Your task to perform on an android device: toggle sleep mode Image 0: 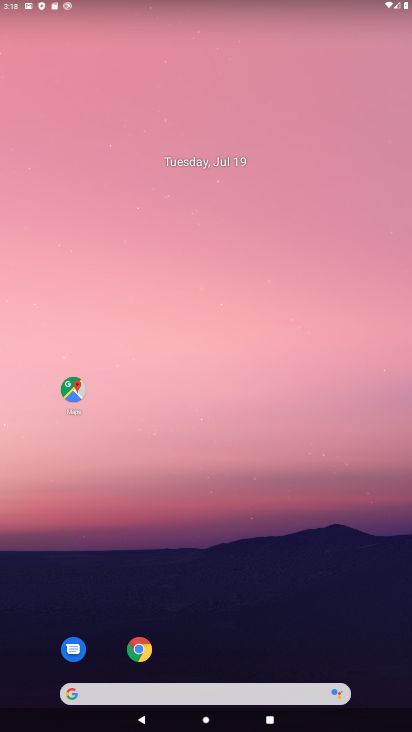
Step 0: drag from (220, 694) to (192, 252)
Your task to perform on an android device: toggle sleep mode Image 1: 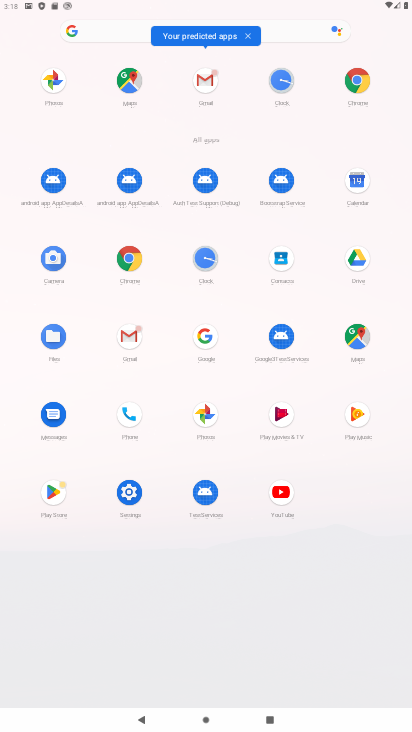
Step 1: click (128, 492)
Your task to perform on an android device: toggle sleep mode Image 2: 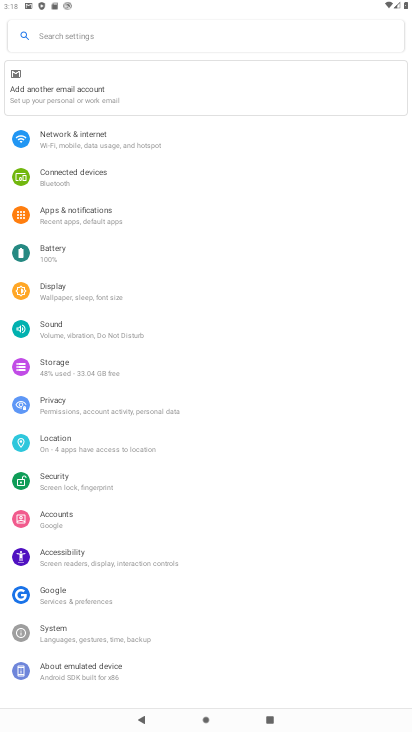
Step 2: click (66, 291)
Your task to perform on an android device: toggle sleep mode Image 3: 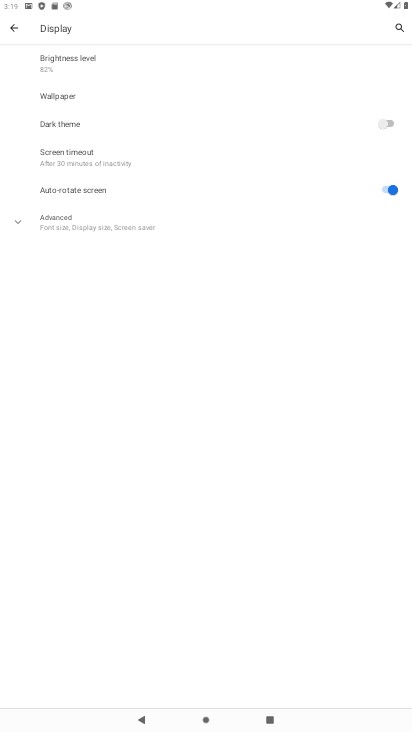
Step 3: task complete